Your task to perform on an android device: open chrome and create a bookmark for the current page Image 0: 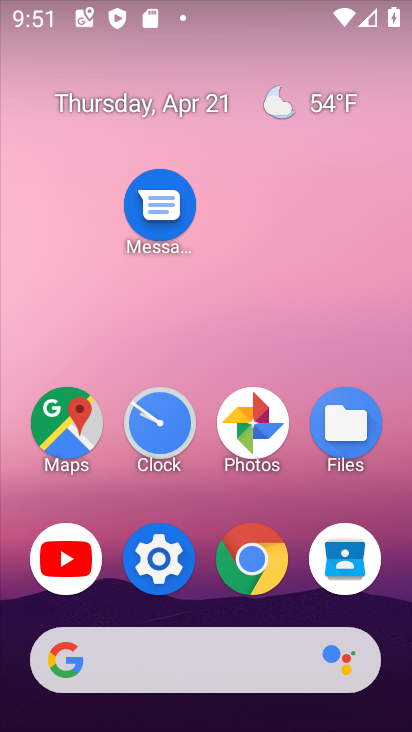
Step 0: click (252, 557)
Your task to perform on an android device: open chrome and create a bookmark for the current page Image 1: 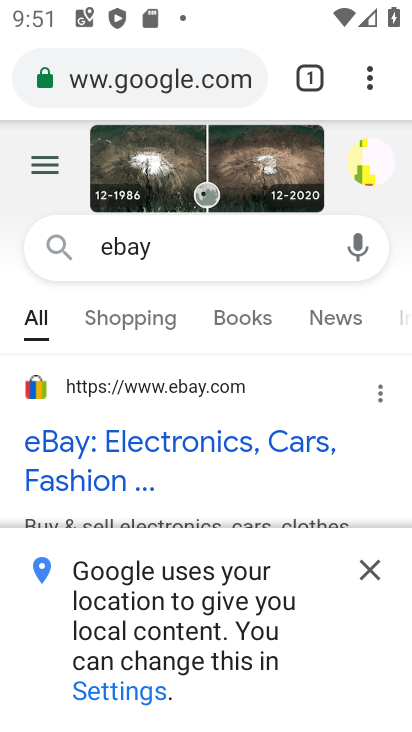
Step 1: click (368, 76)
Your task to perform on an android device: open chrome and create a bookmark for the current page Image 2: 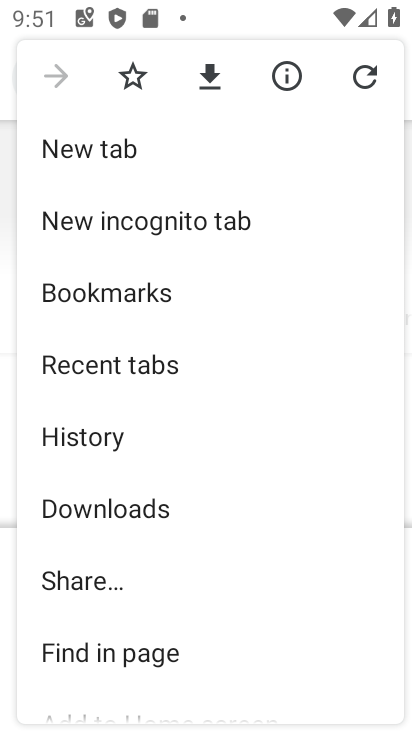
Step 2: click (133, 80)
Your task to perform on an android device: open chrome and create a bookmark for the current page Image 3: 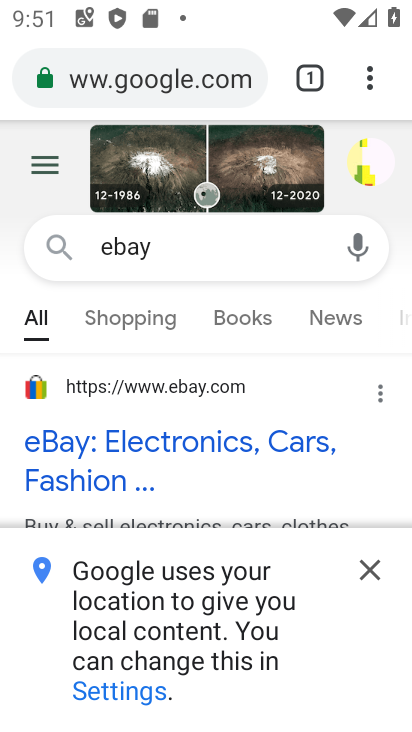
Step 3: task complete